Your task to perform on an android device: find snoozed emails in the gmail app Image 0: 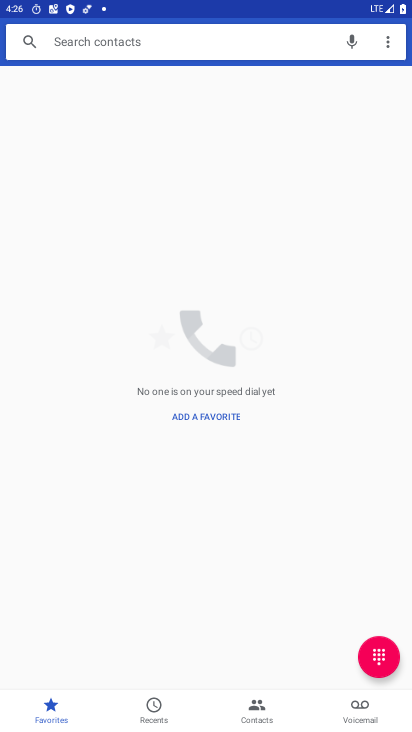
Step 0: press home button
Your task to perform on an android device: find snoozed emails in the gmail app Image 1: 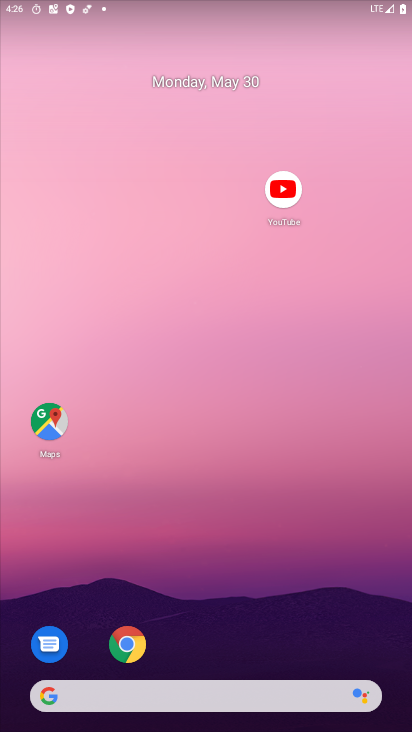
Step 1: drag from (202, 655) to (237, 6)
Your task to perform on an android device: find snoozed emails in the gmail app Image 2: 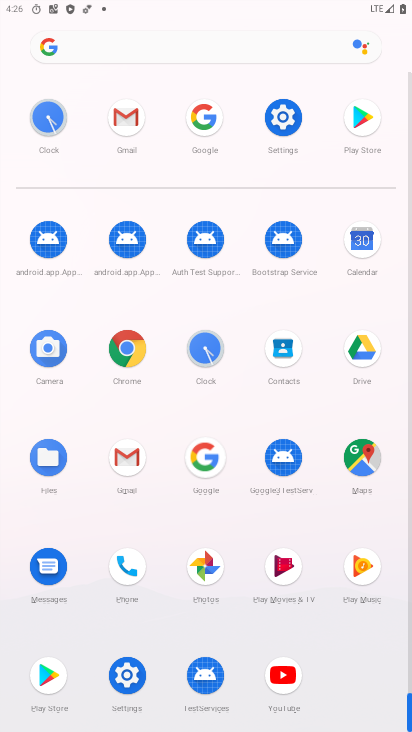
Step 2: click (132, 106)
Your task to perform on an android device: find snoozed emails in the gmail app Image 3: 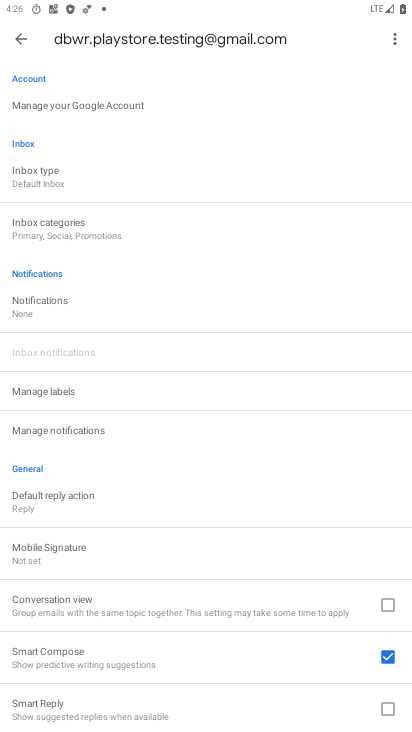
Step 3: click (15, 43)
Your task to perform on an android device: find snoozed emails in the gmail app Image 4: 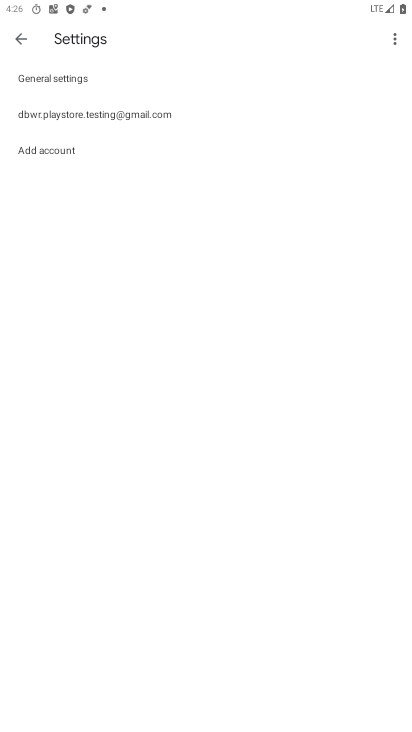
Step 4: click (15, 43)
Your task to perform on an android device: find snoozed emails in the gmail app Image 5: 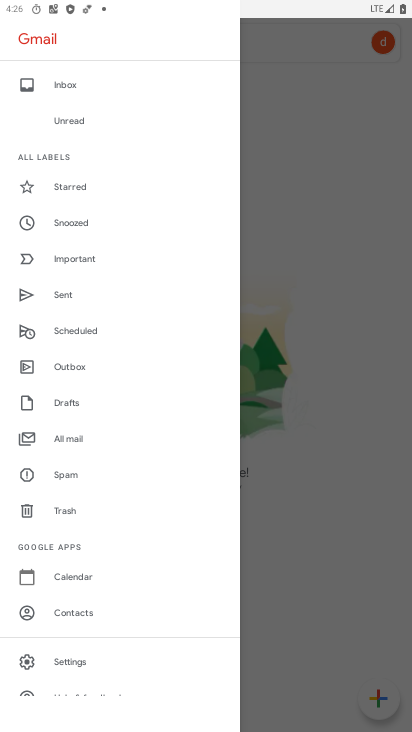
Step 5: click (92, 234)
Your task to perform on an android device: find snoozed emails in the gmail app Image 6: 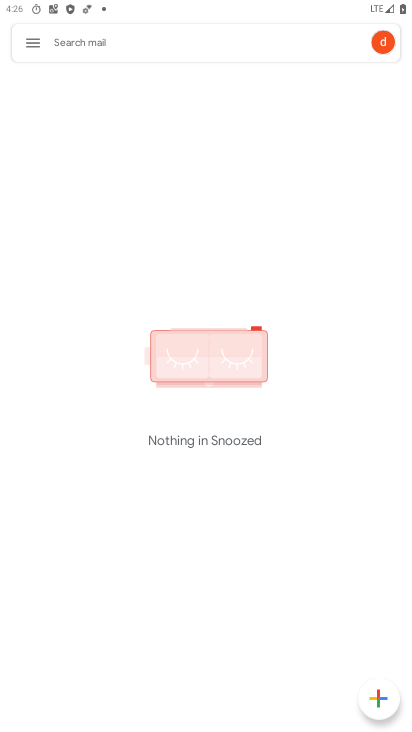
Step 6: task complete